Your task to perform on an android device: Open sound settings Image 0: 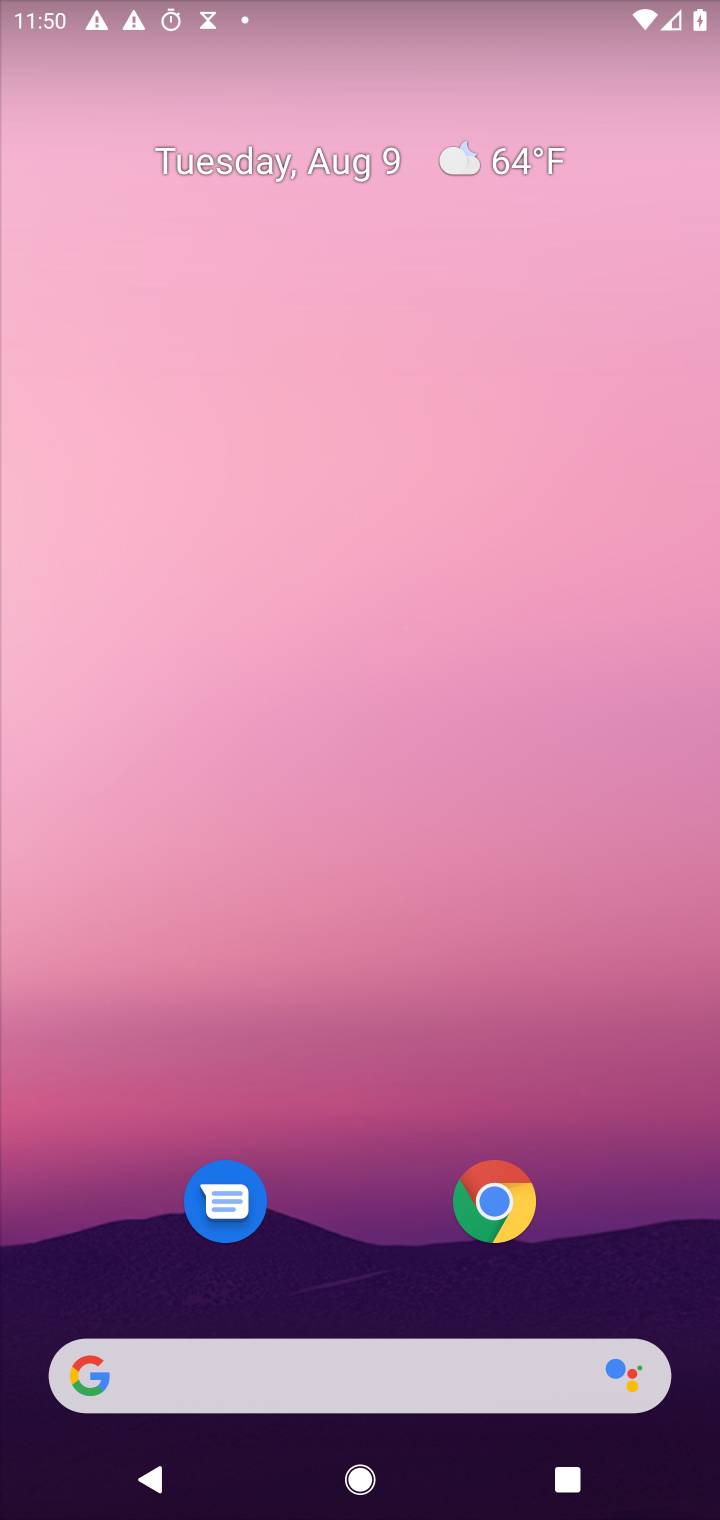
Step 0: press home button
Your task to perform on an android device: Open sound settings Image 1: 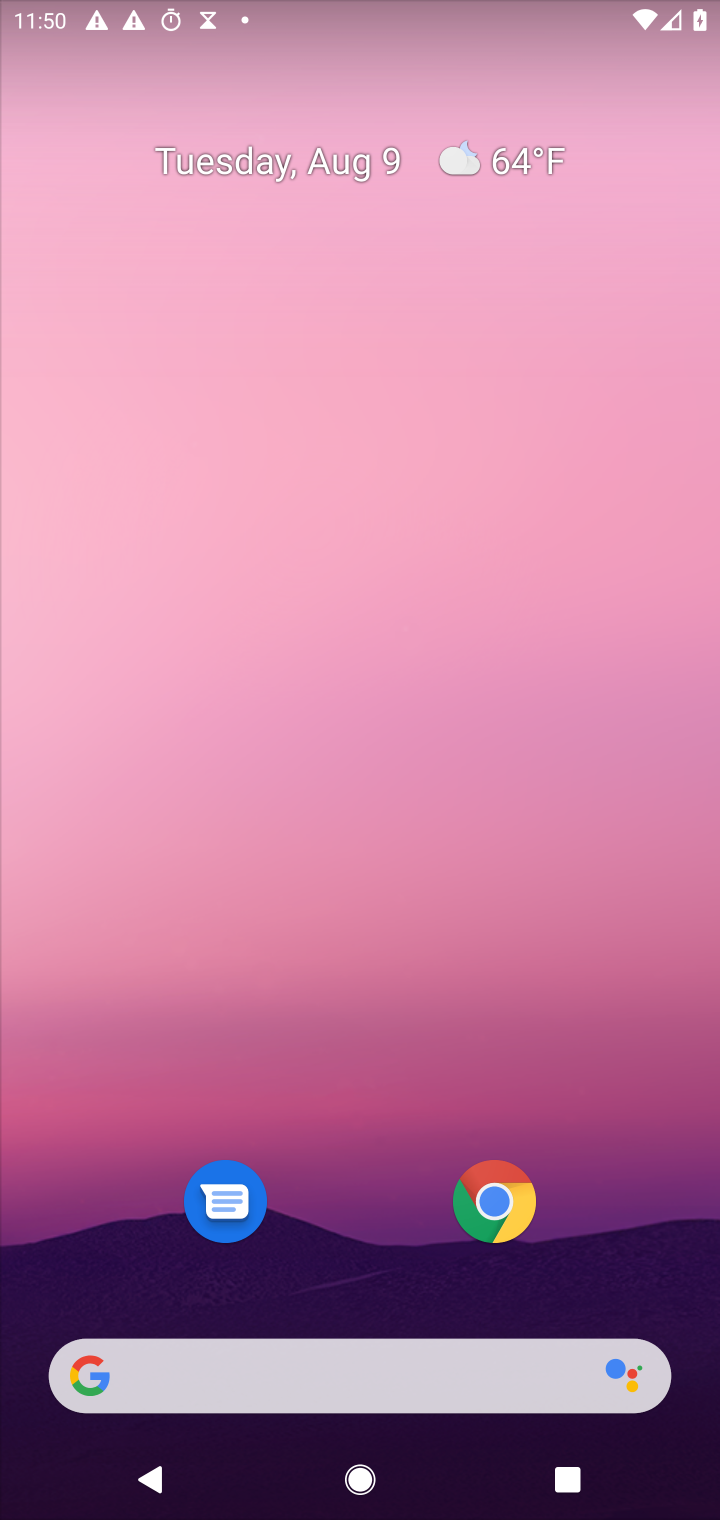
Step 1: drag from (387, 1195) to (364, 335)
Your task to perform on an android device: Open sound settings Image 2: 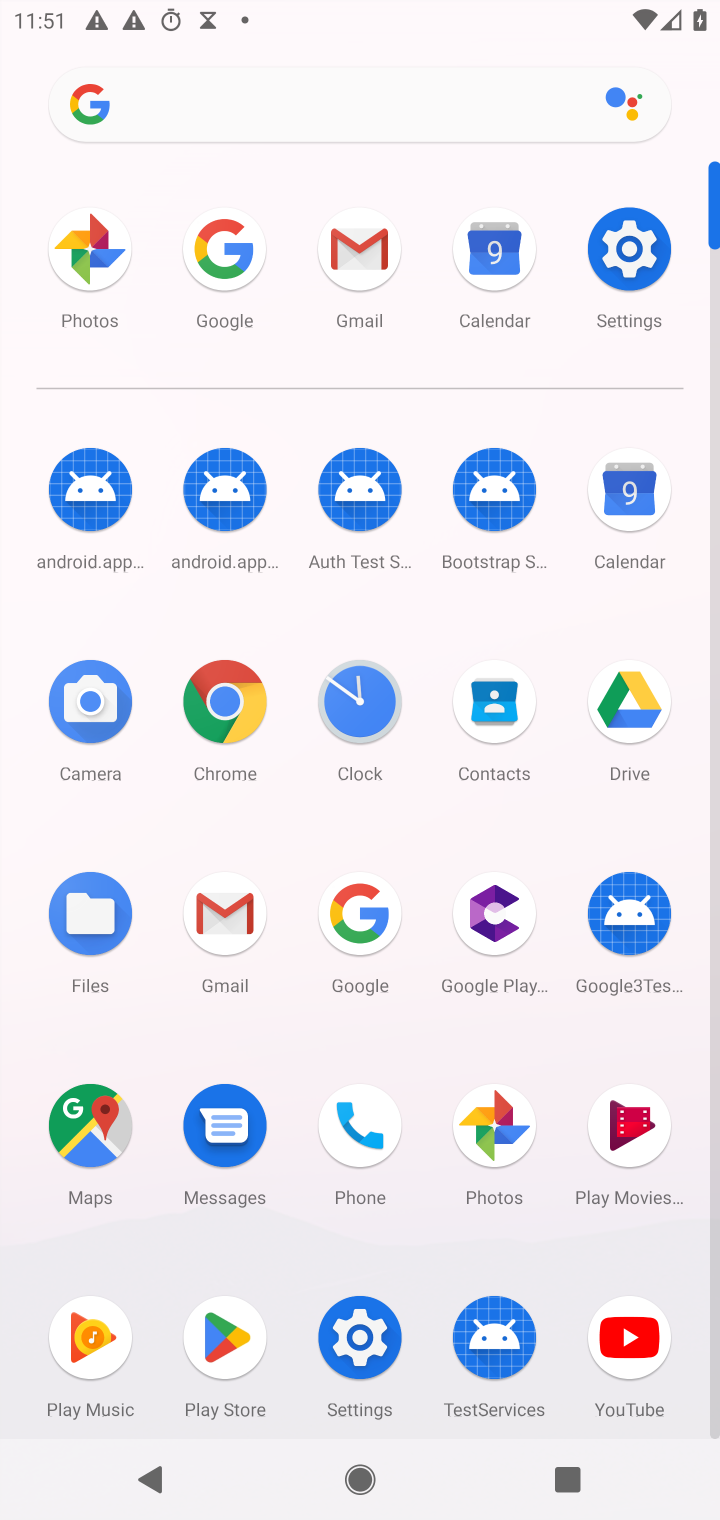
Step 2: click (640, 265)
Your task to perform on an android device: Open sound settings Image 3: 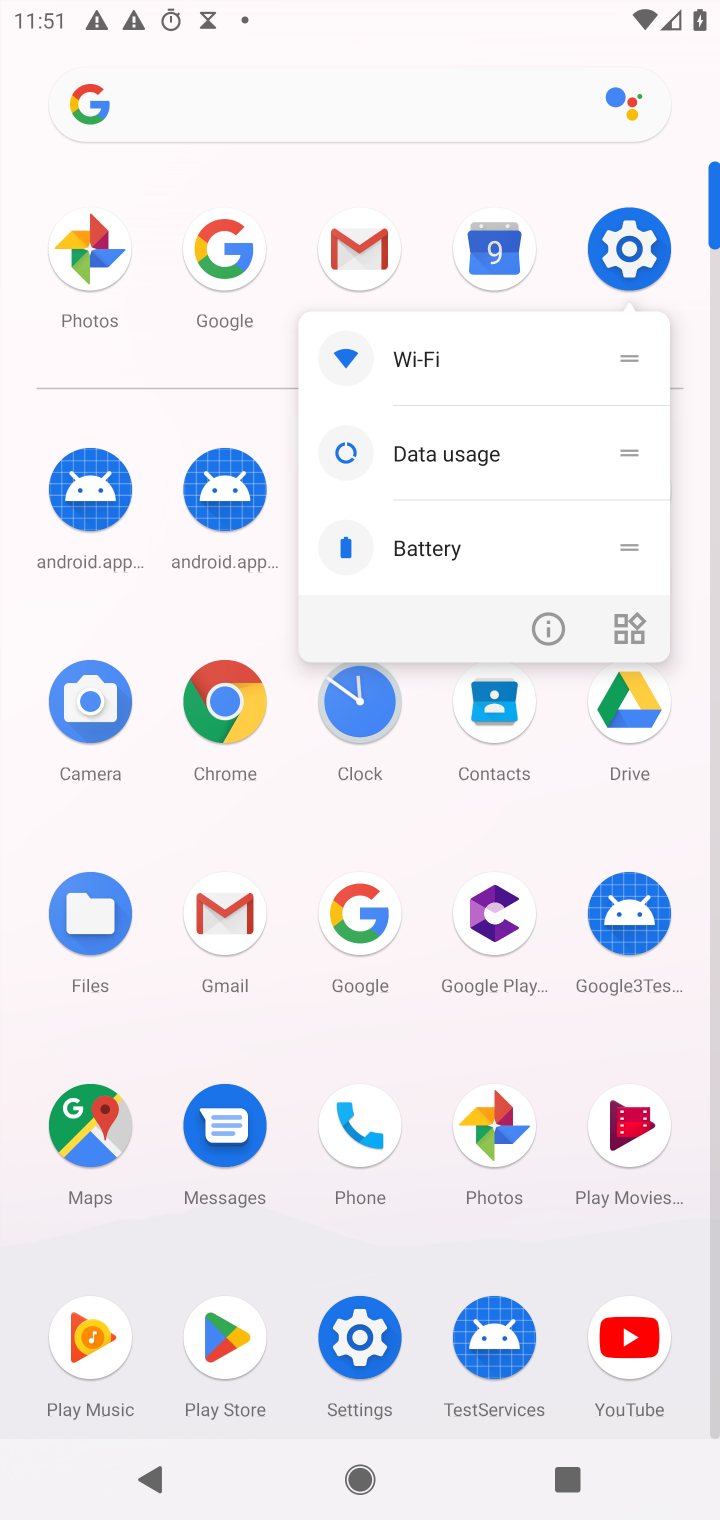
Step 3: click (617, 243)
Your task to perform on an android device: Open sound settings Image 4: 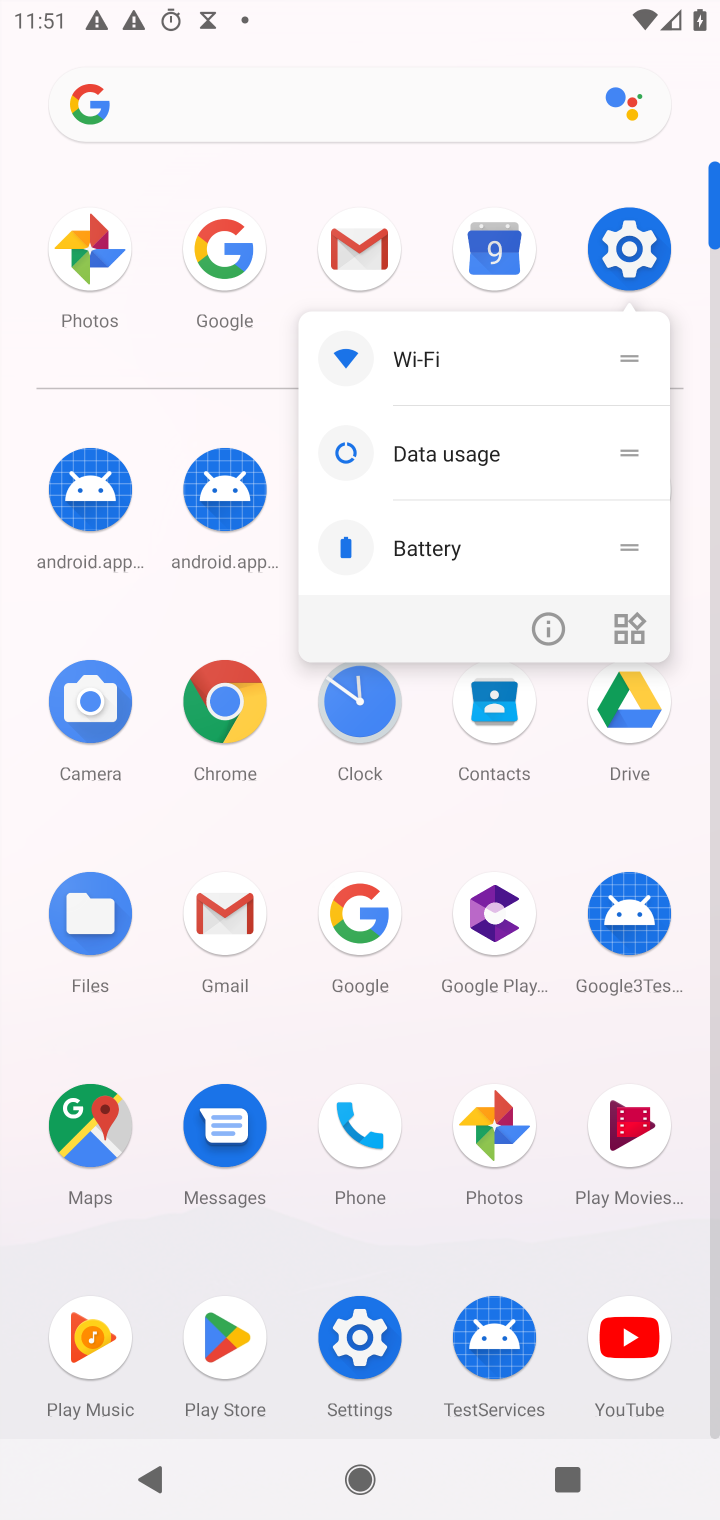
Step 4: click (625, 235)
Your task to perform on an android device: Open sound settings Image 5: 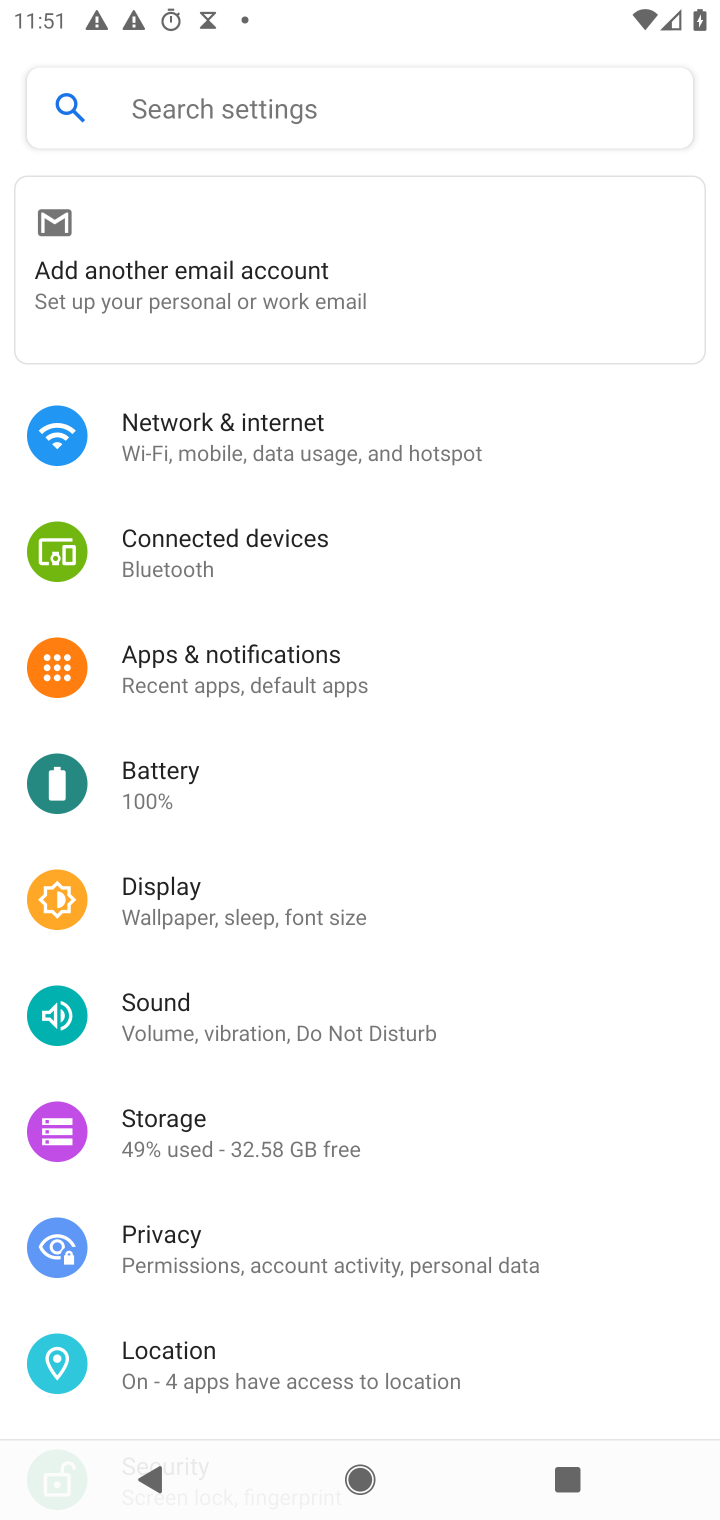
Step 5: click (184, 1032)
Your task to perform on an android device: Open sound settings Image 6: 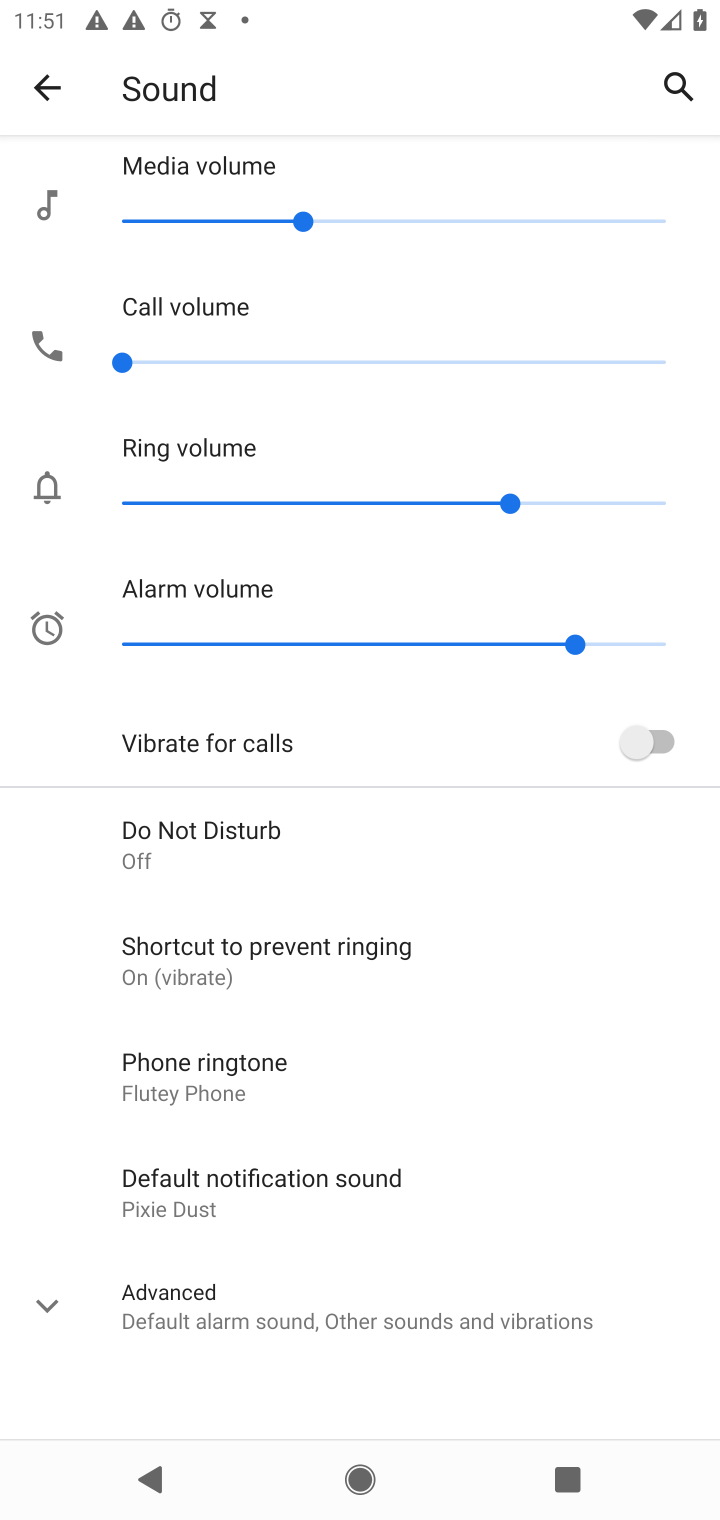
Step 6: task complete